Your task to perform on an android device: check out phone information Image 0: 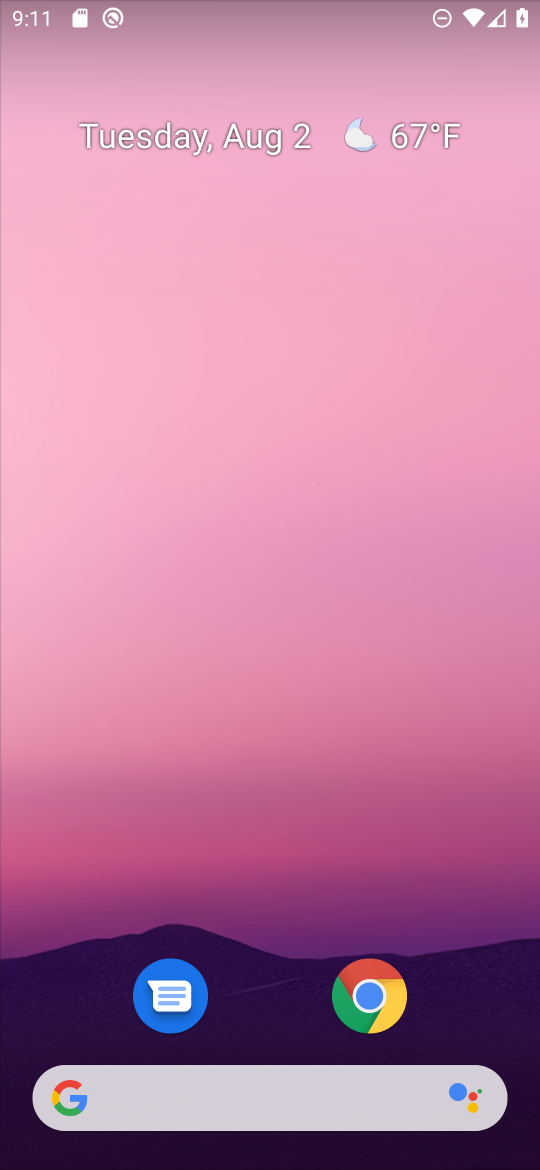
Step 0: drag from (280, 1012) to (246, 32)
Your task to perform on an android device: check out phone information Image 1: 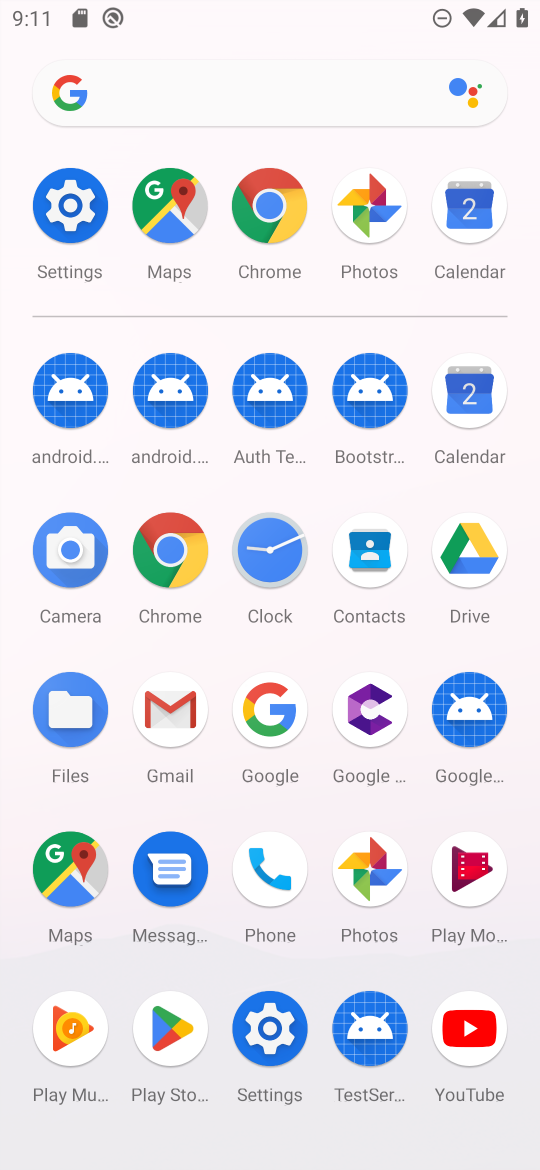
Step 1: click (276, 857)
Your task to perform on an android device: check out phone information Image 2: 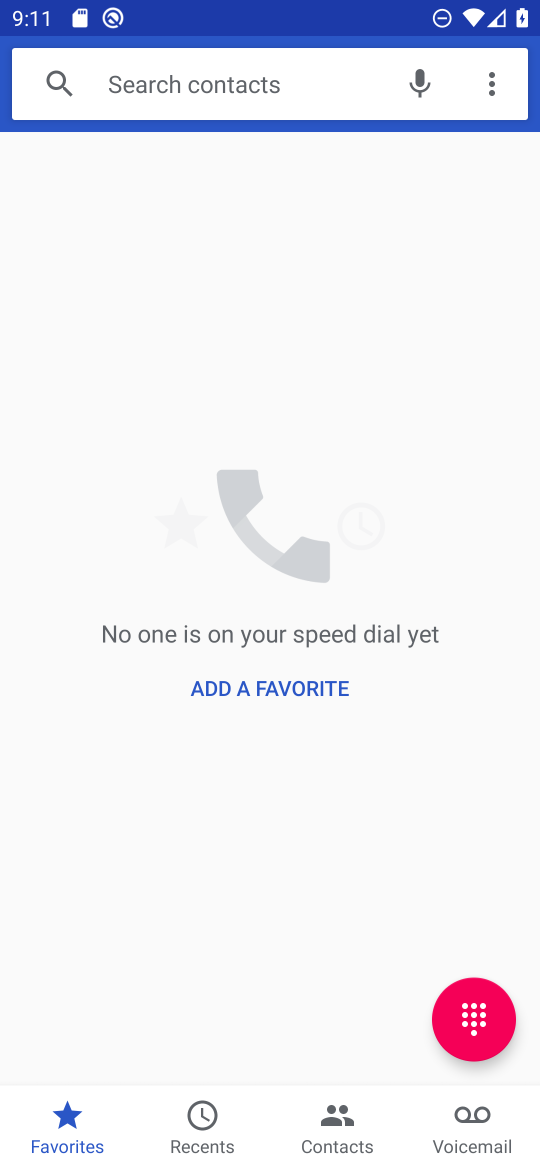
Step 2: press back button
Your task to perform on an android device: check out phone information Image 3: 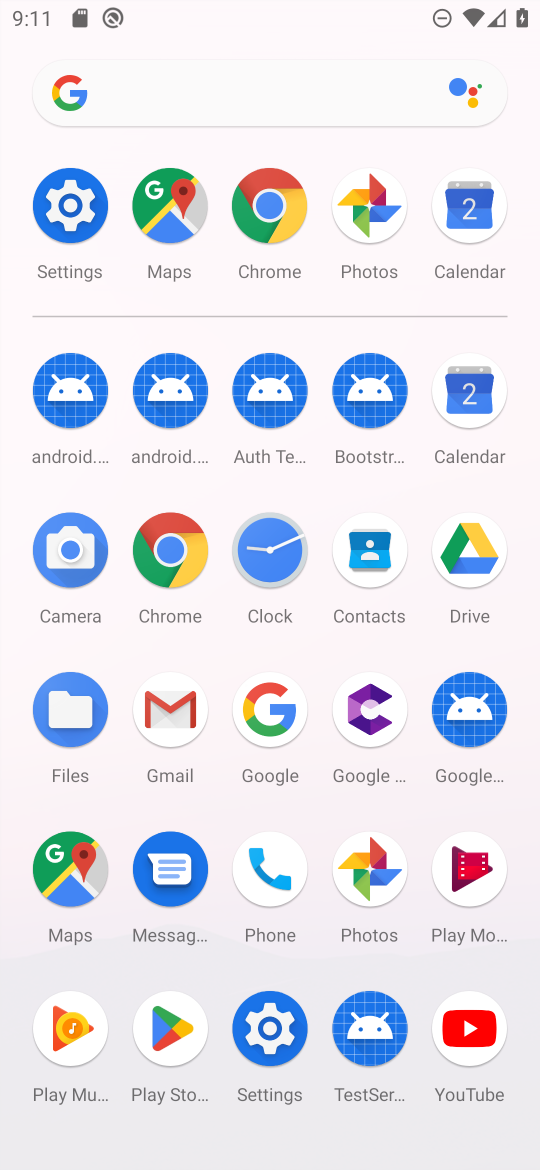
Step 3: click (277, 860)
Your task to perform on an android device: check out phone information Image 4: 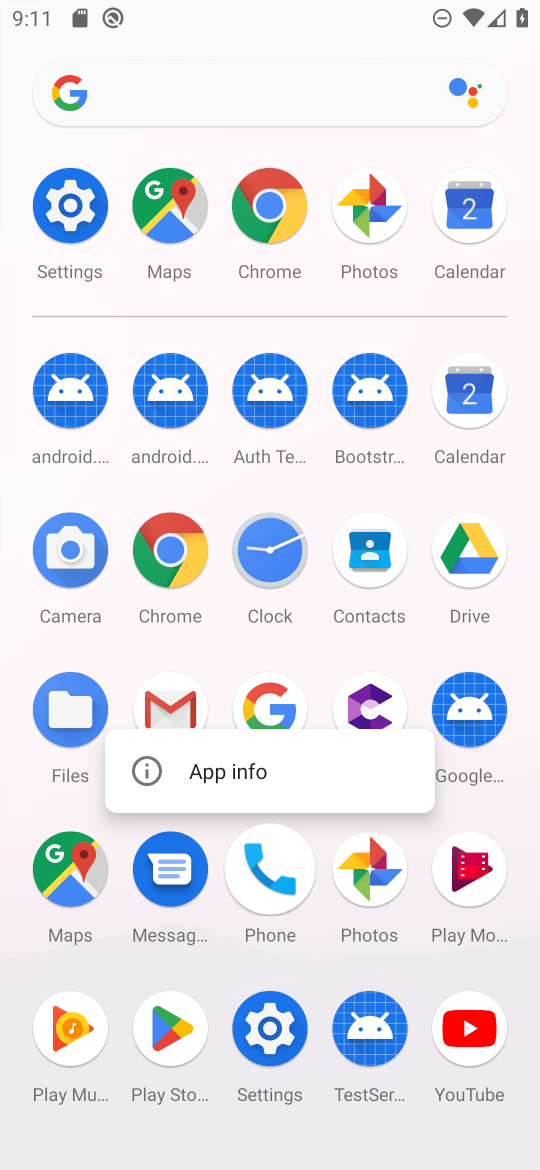
Step 4: click (290, 772)
Your task to perform on an android device: check out phone information Image 5: 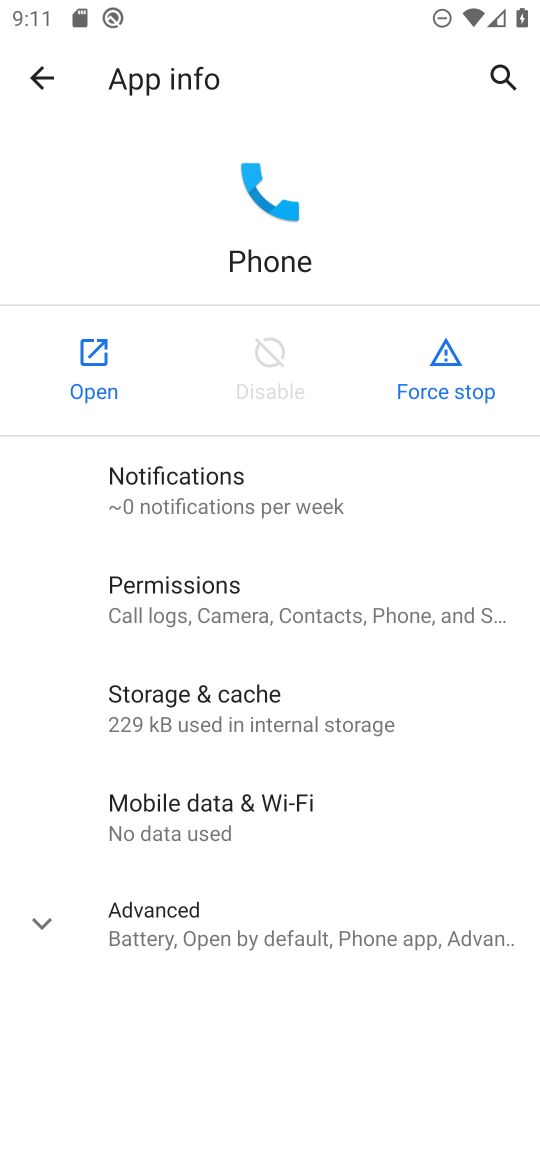
Step 5: task complete